Your task to perform on an android device: What's the latest video from IGN? Image 0: 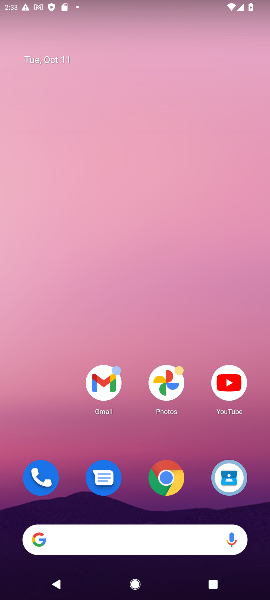
Step 0: drag from (146, 537) to (138, 147)
Your task to perform on an android device: What's the latest video from IGN? Image 1: 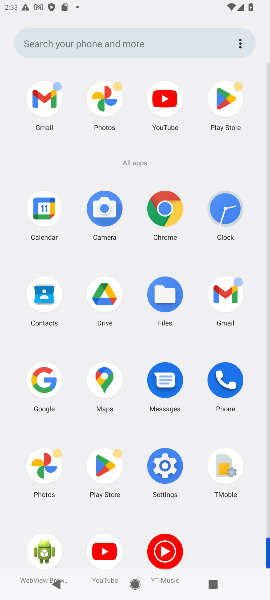
Step 1: click (99, 549)
Your task to perform on an android device: What's the latest video from IGN? Image 2: 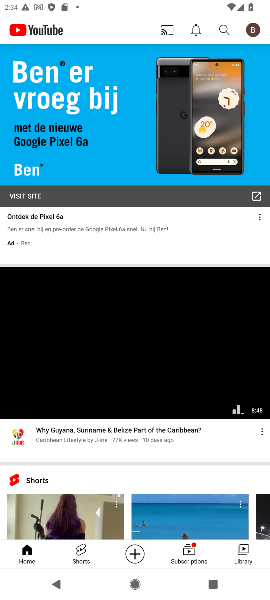
Step 2: click (223, 31)
Your task to perform on an android device: What's the latest video from IGN? Image 3: 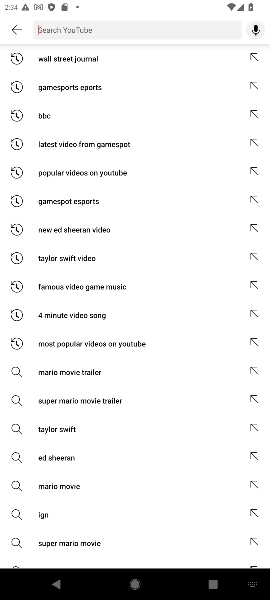
Step 3: type "latest video ftom ign"
Your task to perform on an android device: What's the latest video from IGN? Image 4: 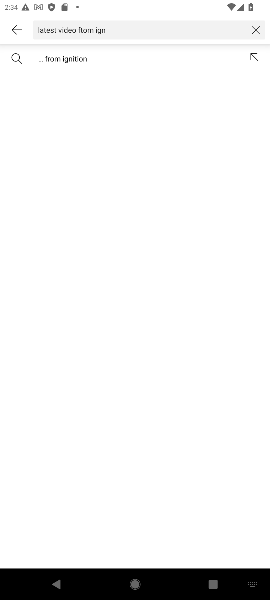
Step 4: press enter
Your task to perform on an android device: What's the latest video from IGN? Image 5: 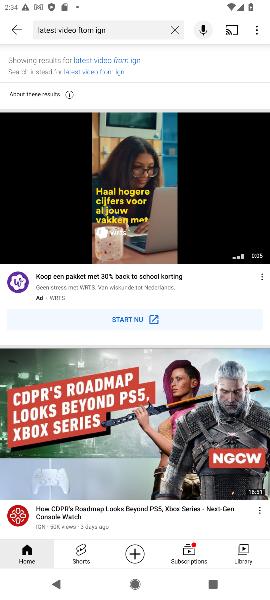
Step 5: click (122, 57)
Your task to perform on an android device: What's the latest video from IGN? Image 6: 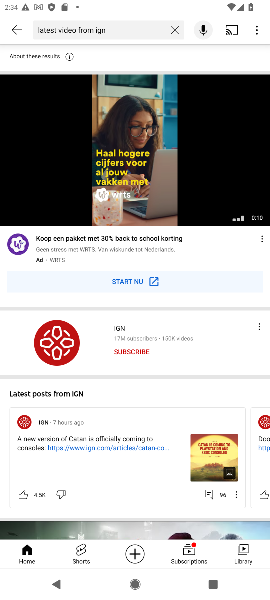
Step 6: click (46, 359)
Your task to perform on an android device: What's the latest video from IGN? Image 7: 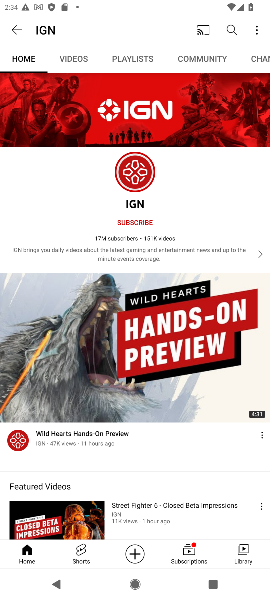
Step 7: click (68, 61)
Your task to perform on an android device: What's the latest video from IGN? Image 8: 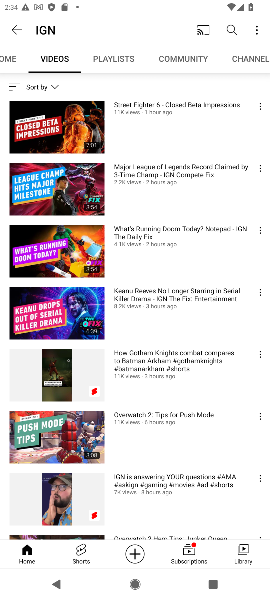
Step 8: click (82, 127)
Your task to perform on an android device: What's the latest video from IGN? Image 9: 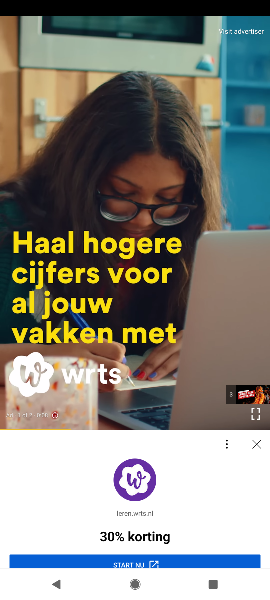
Step 9: task complete